Your task to perform on an android device: Open settings on Google Maps Image 0: 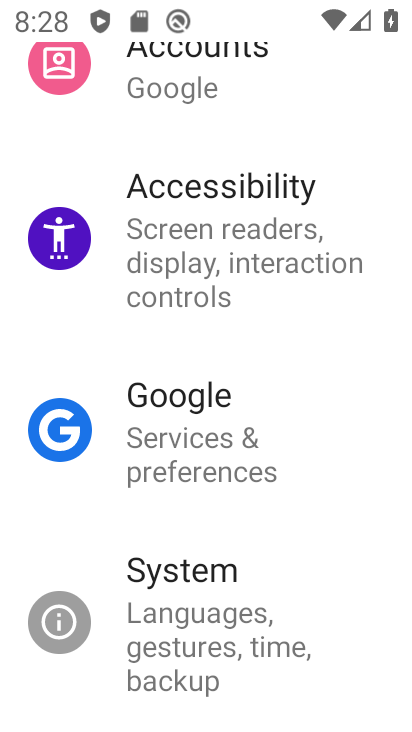
Step 0: press home button
Your task to perform on an android device: Open settings on Google Maps Image 1: 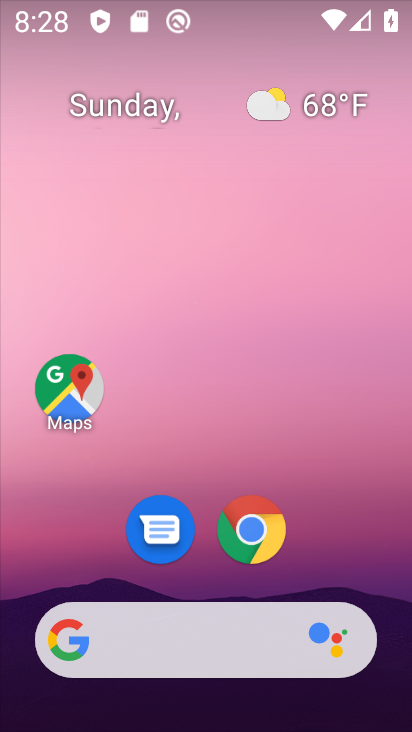
Step 1: click (72, 385)
Your task to perform on an android device: Open settings on Google Maps Image 2: 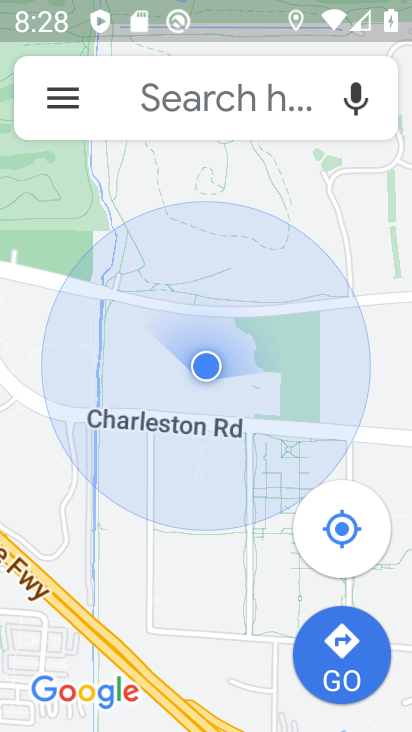
Step 2: click (60, 100)
Your task to perform on an android device: Open settings on Google Maps Image 3: 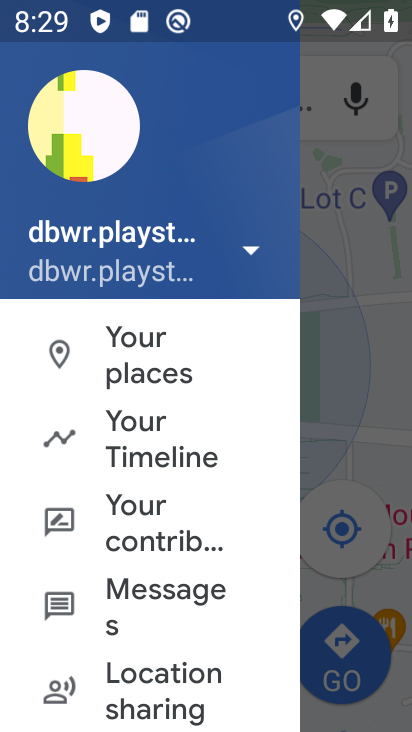
Step 3: drag from (138, 663) to (155, 143)
Your task to perform on an android device: Open settings on Google Maps Image 4: 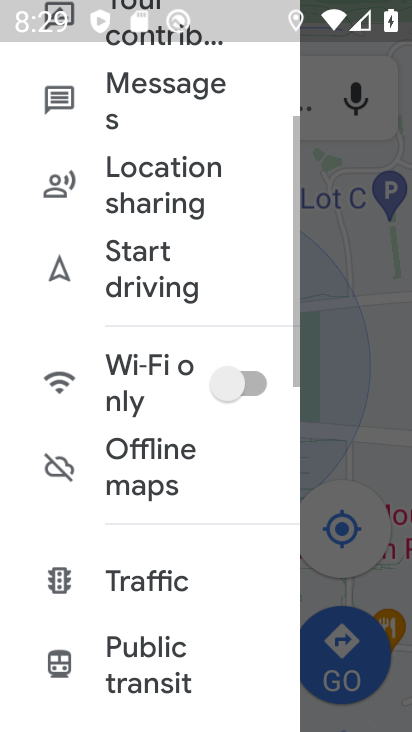
Step 4: drag from (173, 646) to (185, 122)
Your task to perform on an android device: Open settings on Google Maps Image 5: 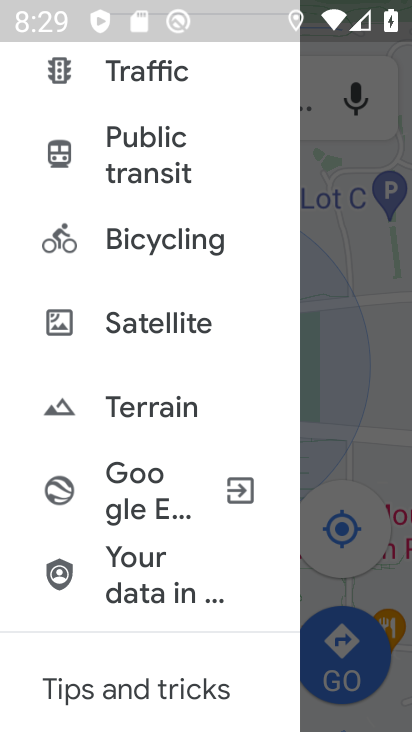
Step 5: drag from (143, 634) to (155, 99)
Your task to perform on an android device: Open settings on Google Maps Image 6: 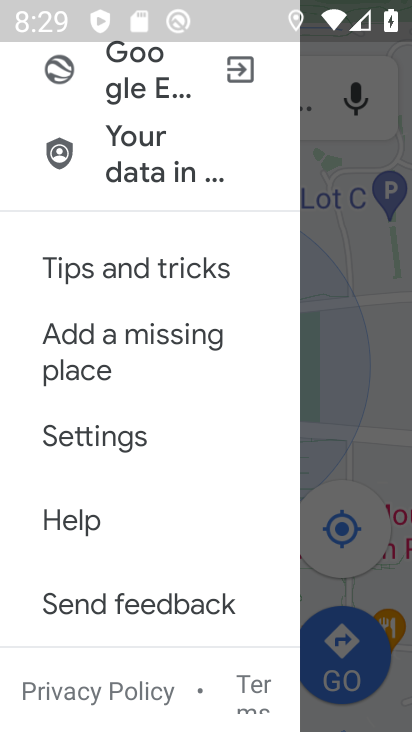
Step 6: click (156, 430)
Your task to perform on an android device: Open settings on Google Maps Image 7: 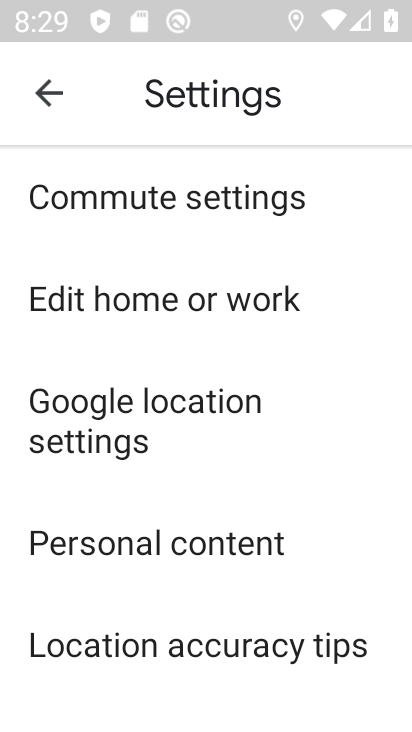
Step 7: task complete